Your task to perform on an android device: turn on the 12-hour format for clock Image 0: 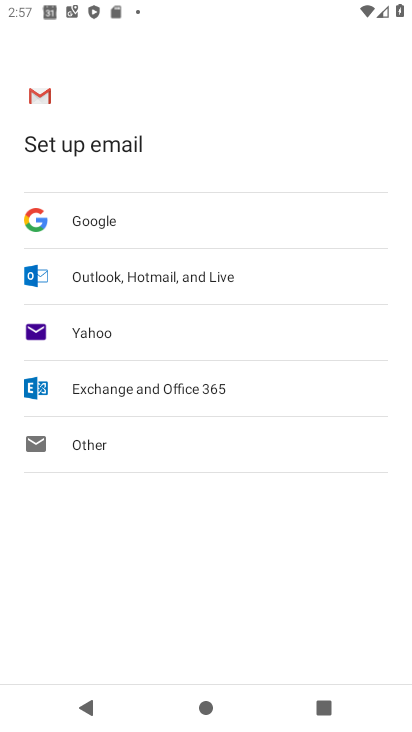
Step 0: press home button
Your task to perform on an android device: turn on the 12-hour format for clock Image 1: 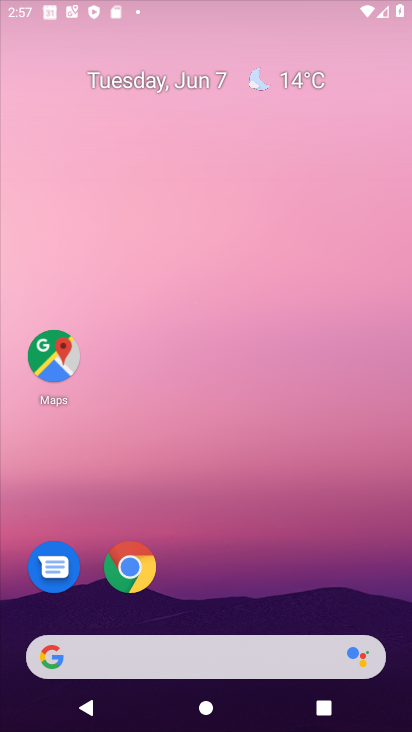
Step 1: drag from (200, 554) to (207, 162)
Your task to perform on an android device: turn on the 12-hour format for clock Image 2: 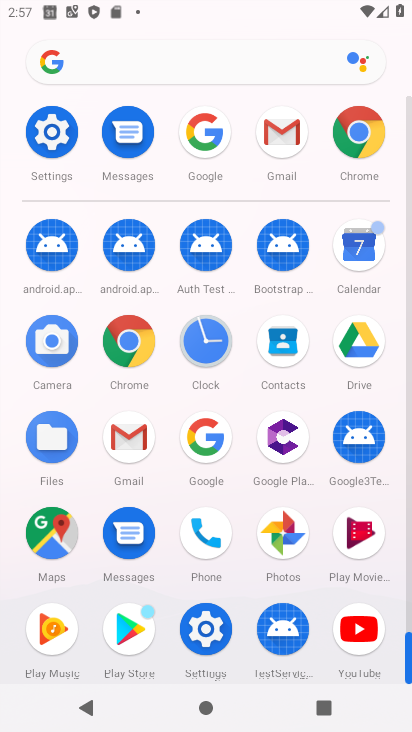
Step 2: click (222, 334)
Your task to perform on an android device: turn on the 12-hour format for clock Image 3: 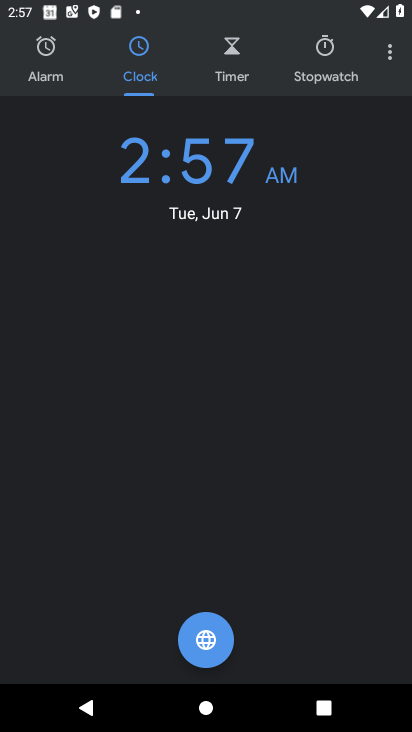
Step 3: click (386, 44)
Your task to perform on an android device: turn on the 12-hour format for clock Image 4: 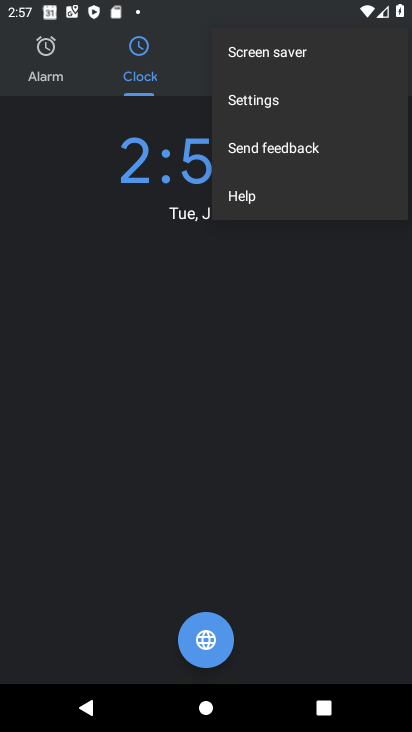
Step 4: click (317, 109)
Your task to perform on an android device: turn on the 12-hour format for clock Image 5: 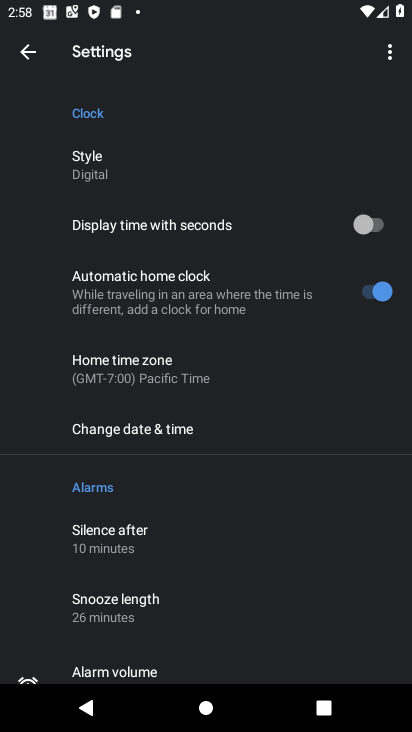
Step 5: click (150, 421)
Your task to perform on an android device: turn on the 12-hour format for clock Image 6: 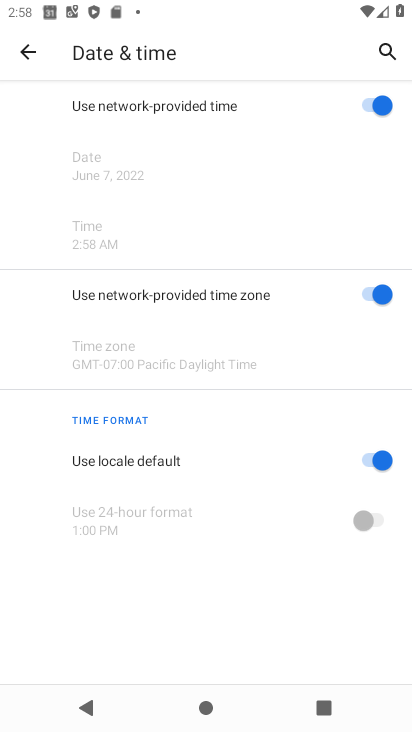
Step 6: task complete